Your task to perform on an android device: Show me popular videos on Youtube Image 0: 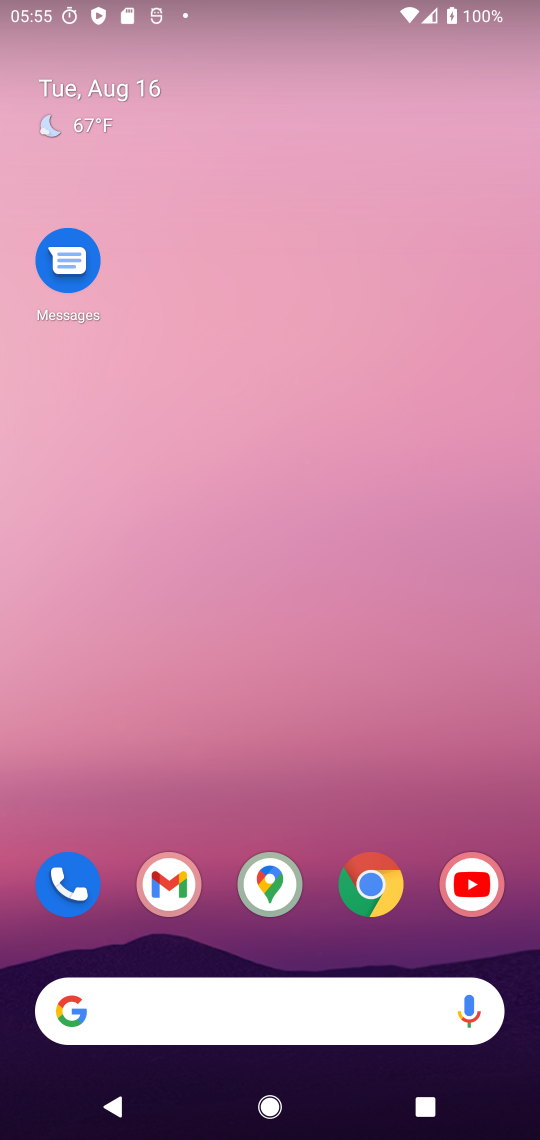
Step 0: click (453, 885)
Your task to perform on an android device: Show me popular videos on Youtube Image 1: 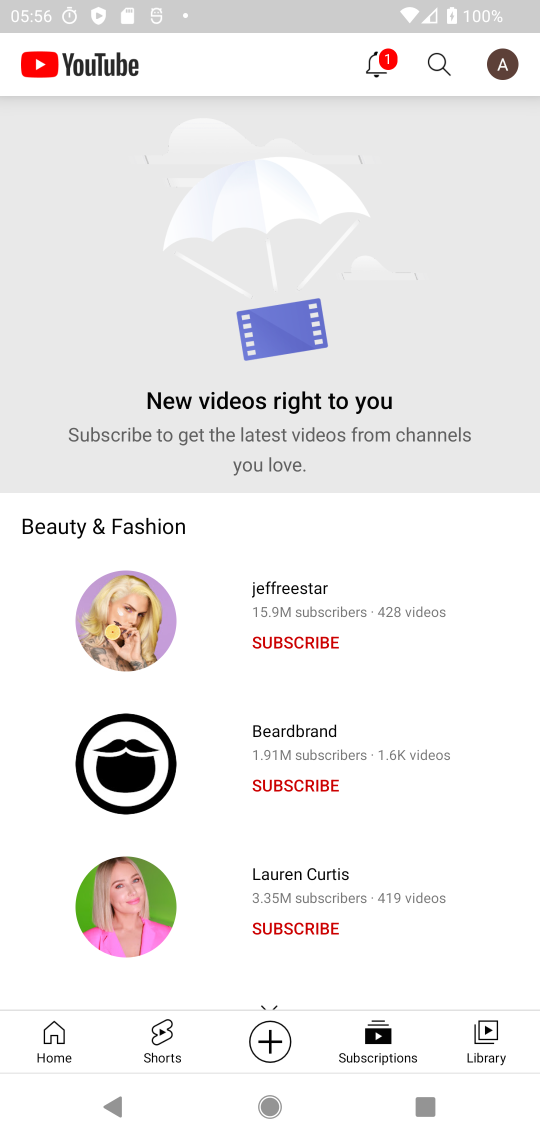
Step 1: click (48, 1049)
Your task to perform on an android device: Show me popular videos on Youtube Image 2: 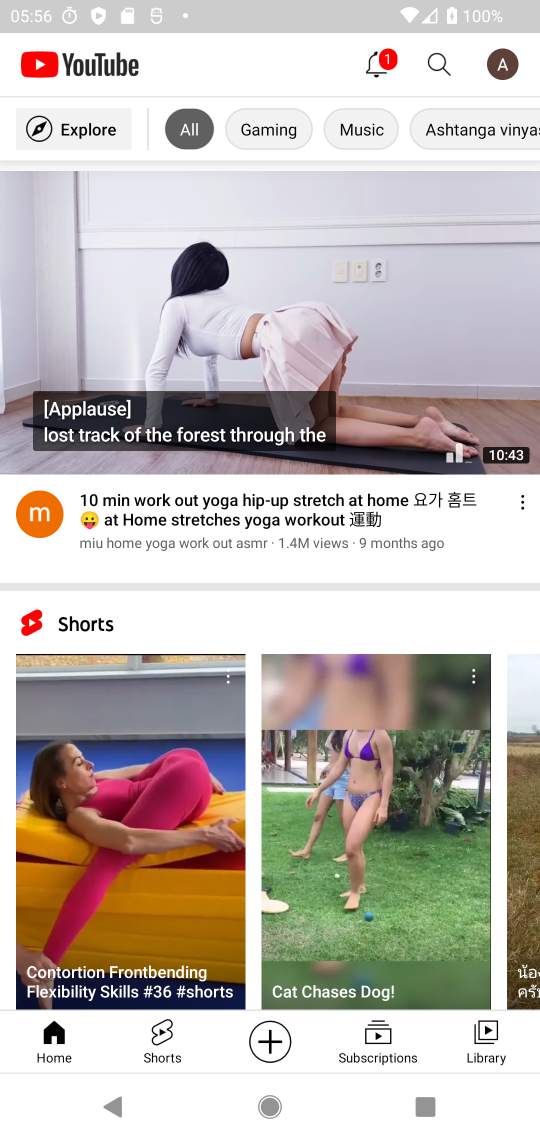
Step 2: click (436, 66)
Your task to perform on an android device: Show me popular videos on Youtube Image 3: 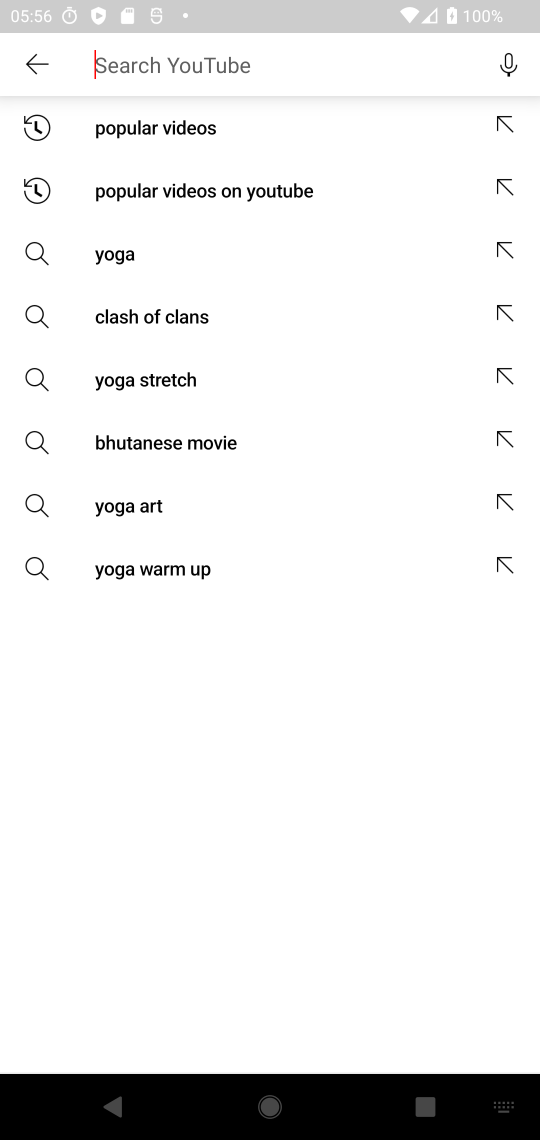
Step 3: click (210, 191)
Your task to perform on an android device: Show me popular videos on Youtube Image 4: 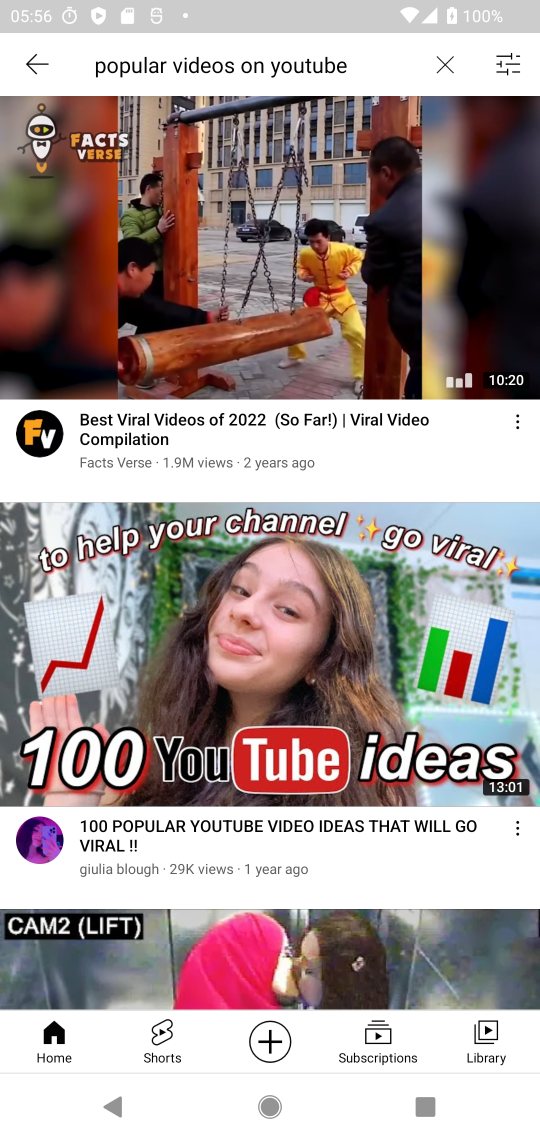
Step 4: task complete